Your task to perform on an android device: turn on translation in the chrome app Image 0: 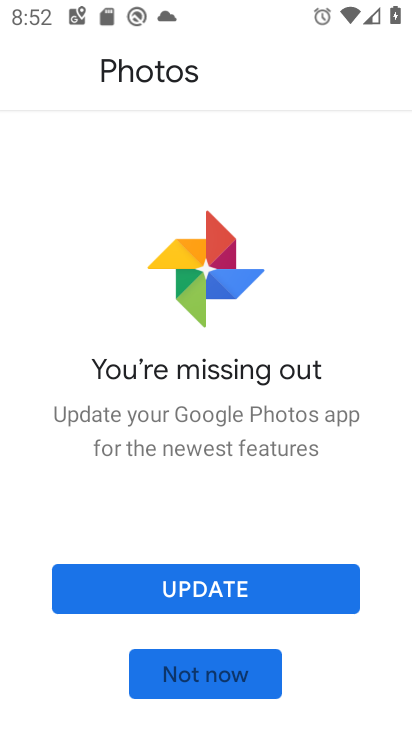
Step 0: press home button
Your task to perform on an android device: turn on translation in the chrome app Image 1: 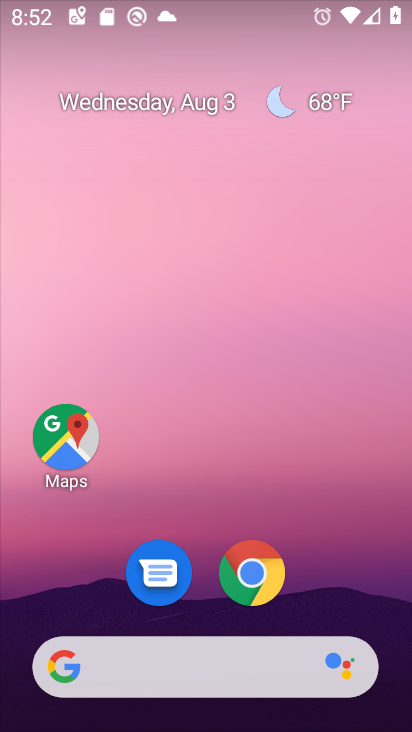
Step 1: click (250, 577)
Your task to perform on an android device: turn on translation in the chrome app Image 2: 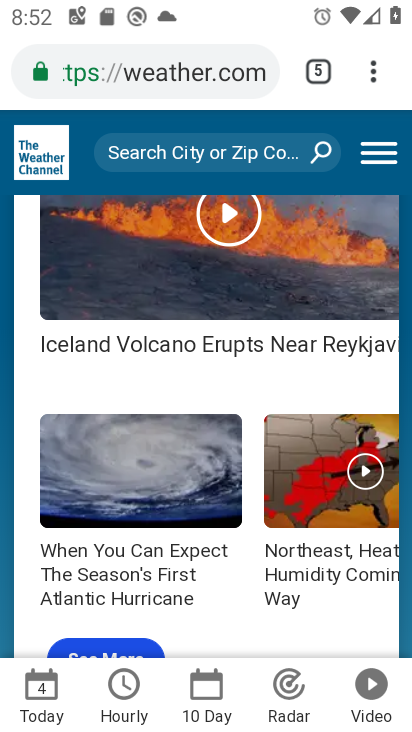
Step 2: drag from (377, 66) to (114, 581)
Your task to perform on an android device: turn on translation in the chrome app Image 3: 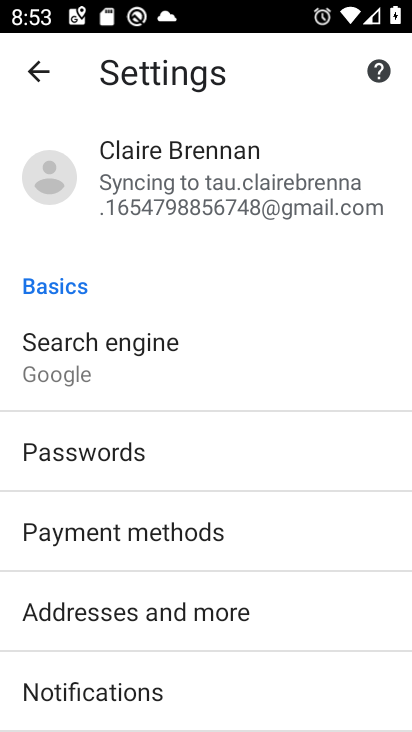
Step 3: drag from (256, 542) to (265, 283)
Your task to perform on an android device: turn on translation in the chrome app Image 4: 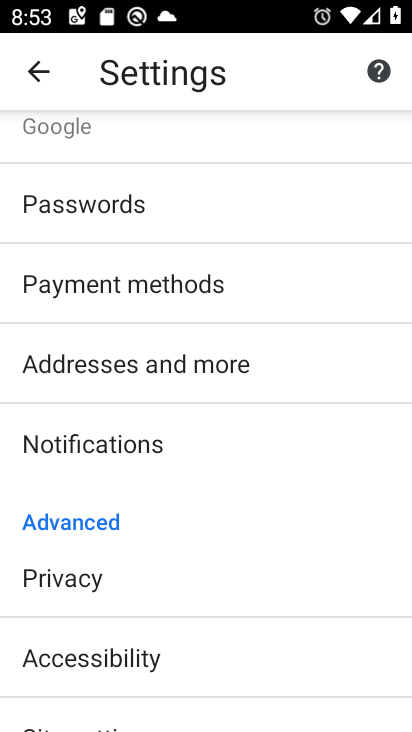
Step 4: drag from (206, 597) to (235, 166)
Your task to perform on an android device: turn on translation in the chrome app Image 5: 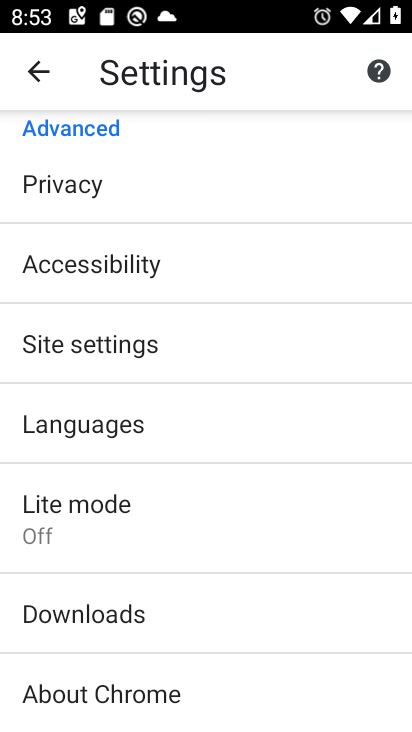
Step 5: click (129, 426)
Your task to perform on an android device: turn on translation in the chrome app Image 6: 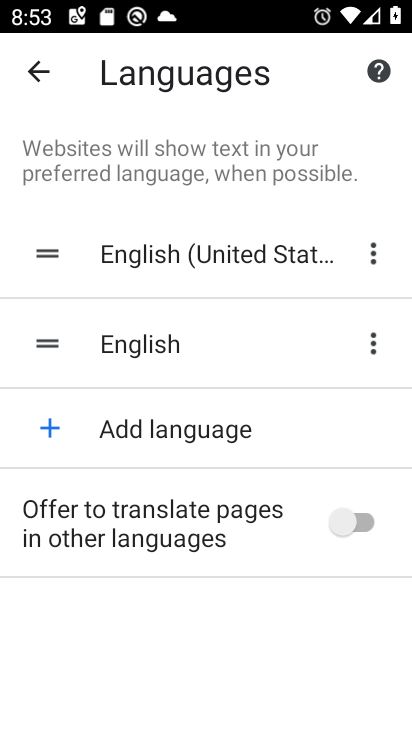
Step 6: click (349, 529)
Your task to perform on an android device: turn on translation in the chrome app Image 7: 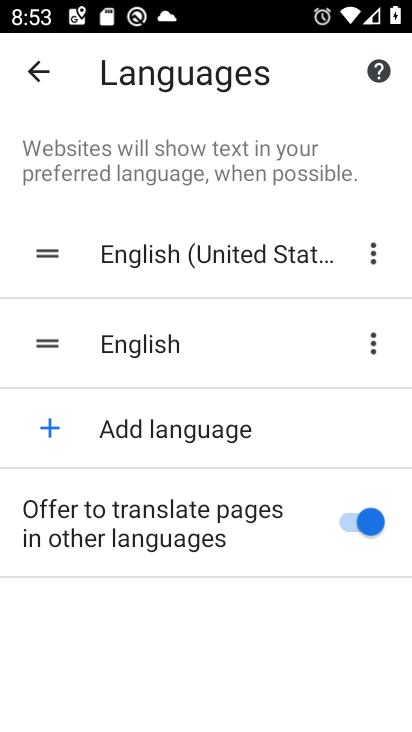
Step 7: task complete